Your task to perform on an android device: Play the last video I watched on Youtube Image 0: 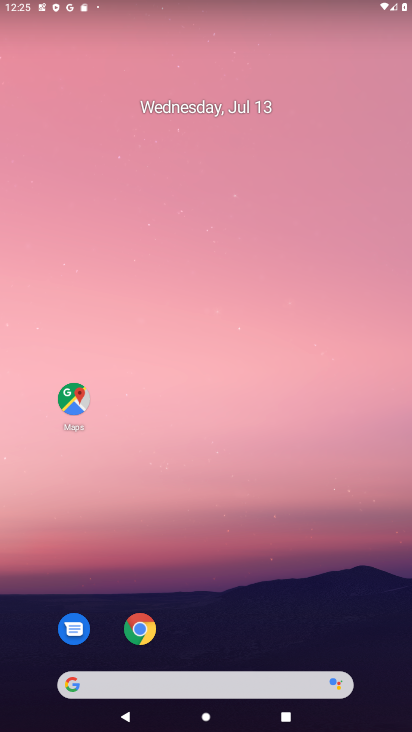
Step 0: drag from (214, 600) to (242, 261)
Your task to perform on an android device: Play the last video I watched on Youtube Image 1: 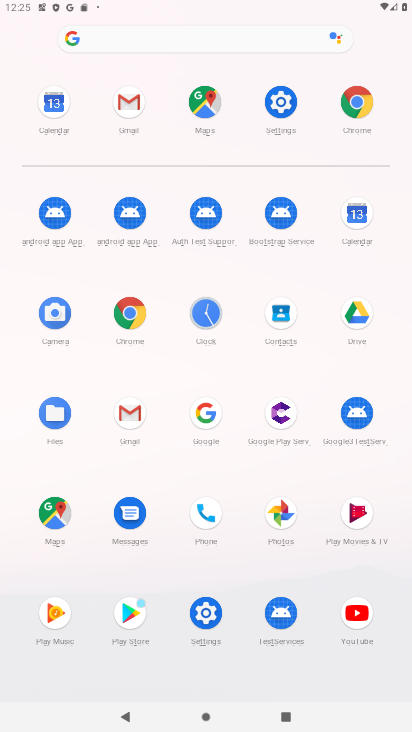
Step 1: click (361, 618)
Your task to perform on an android device: Play the last video I watched on Youtube Image 2: 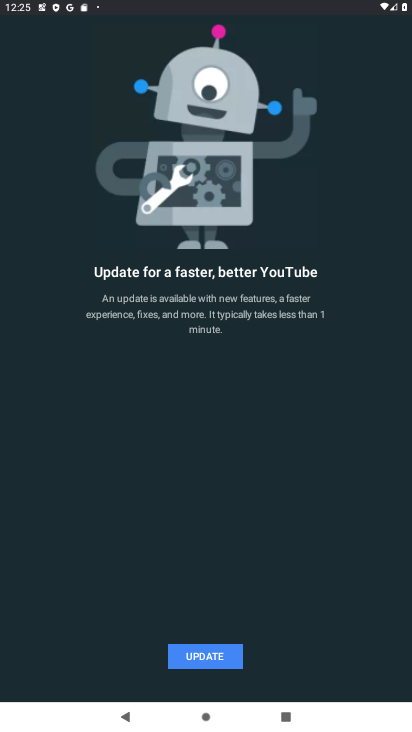
Step 2: task complete